Your task to perform on an android device: Open accessibility settings Image 0: 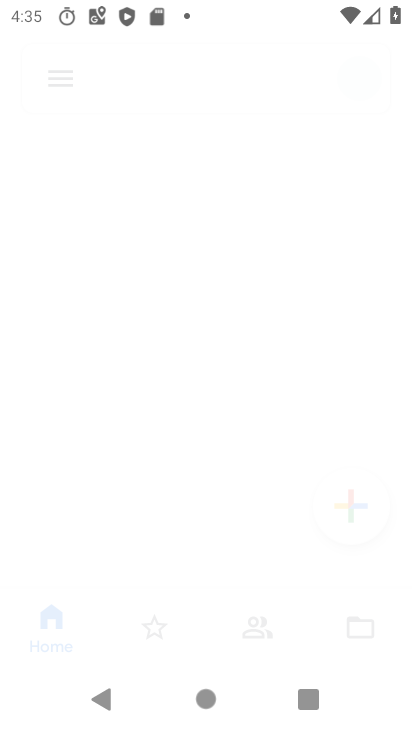
Step 0: drag from (152, 601) to (185, 118)
Your task to perform on an android device: Open accessibility settings Image 1: 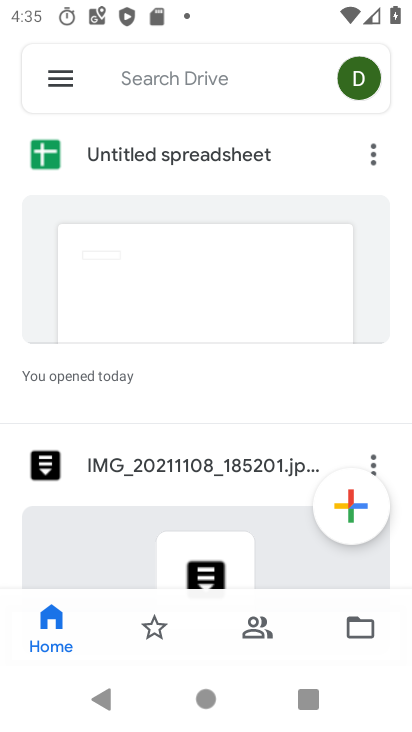
Step 1: press home button
Your task to perform on an android device: Open accessibility settings Image 2: 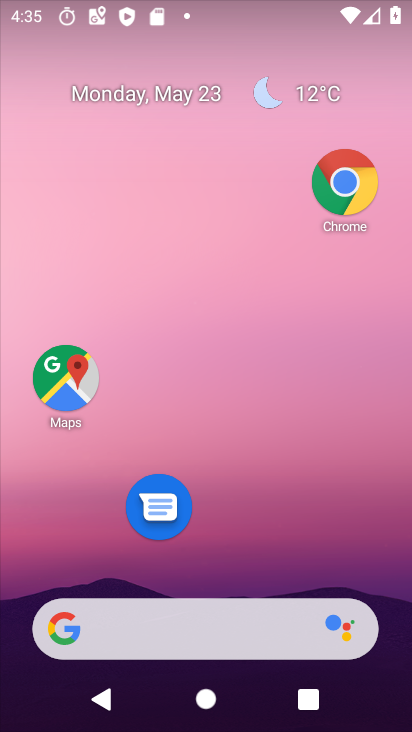
Step 2: drag from (259, 571) to (166, 90)
Your task to perform on an android device: Open accessibility settings Image 3: 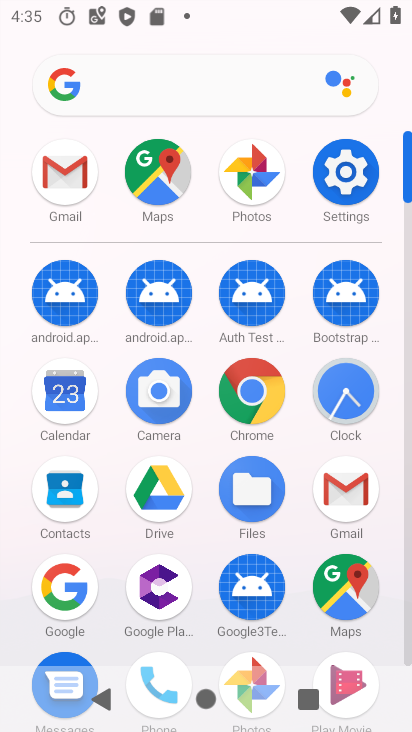
Step 3: click (341, 155)
Your task to perform on an android device: Open accessibility settings Image 4: 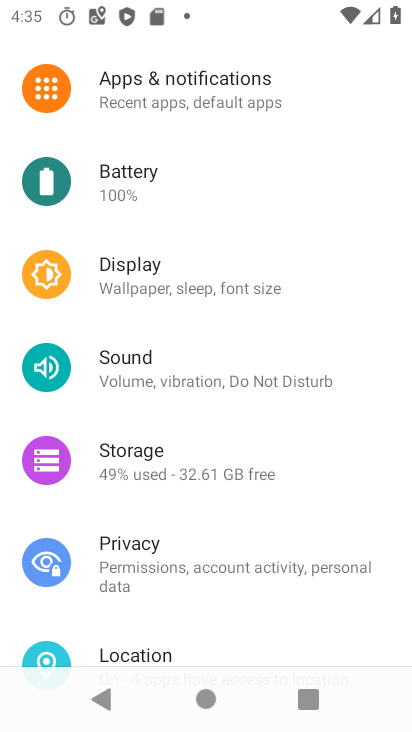
Step 4: drag from (82, 633) to (193, 109)
Your task to perform on an android device: Open accessibility settings Image 5: 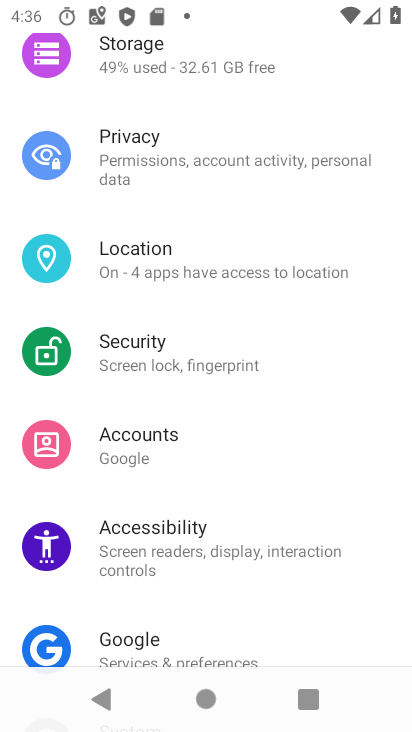
Step 5: click (116, 543)
Your task to perform on an android device: Open accessibility settings Image 6: 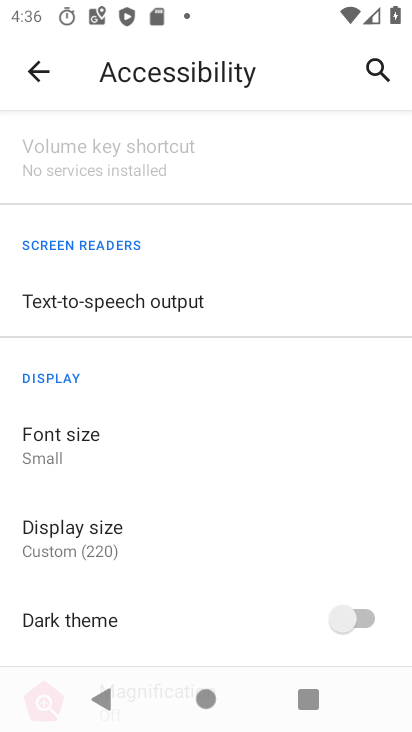
Step 6: task complete